Your task to perform on an android device: Open wifi settings Image 0: 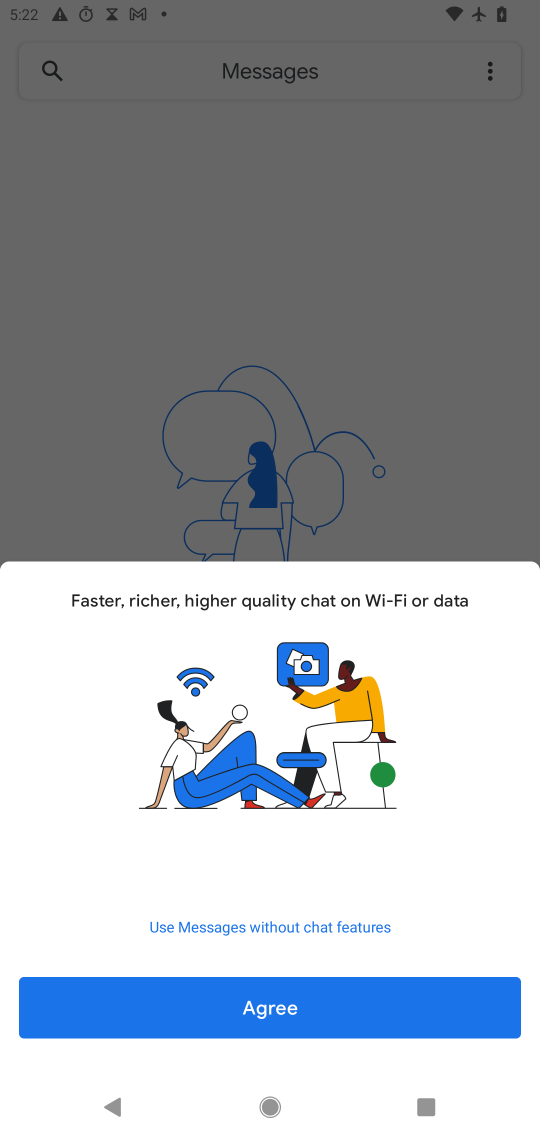
Step 0: press home button
Your task to perform on an android device: Open wifi settings Image 1: 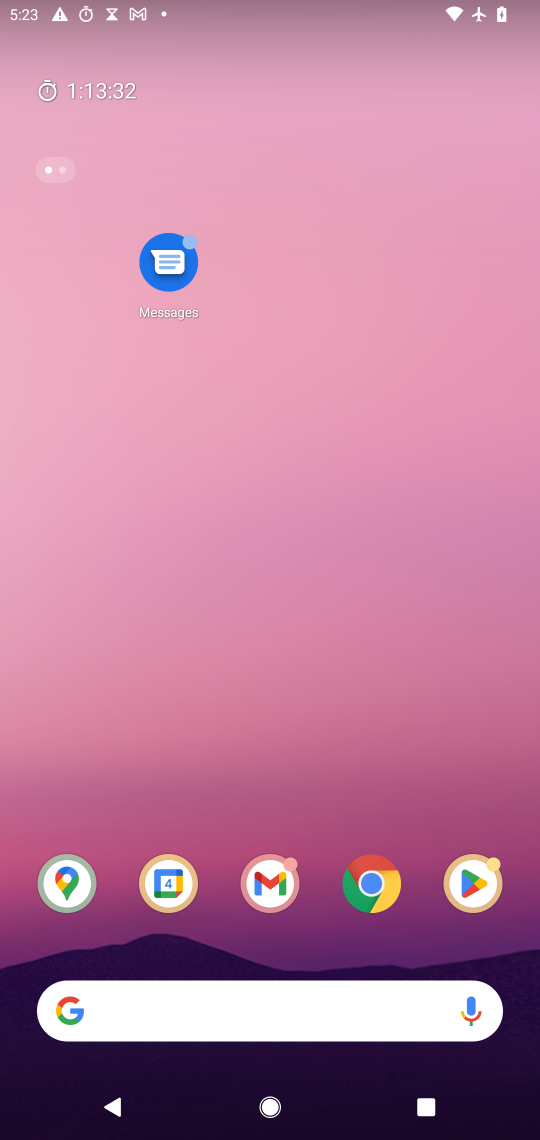
Step 1: drag from (321, 929) to (364, 61)
Your task to perform on an android device: Open wifi settings Image 2: 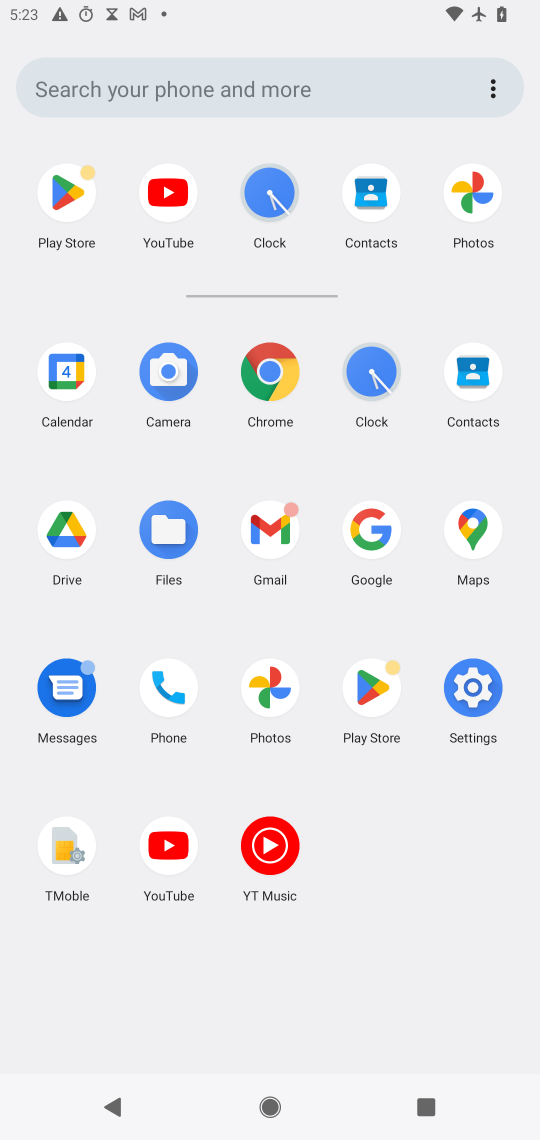
Step 2: click (470, 680)
Your task to perform on an android device: Open wifi settings Image 3: 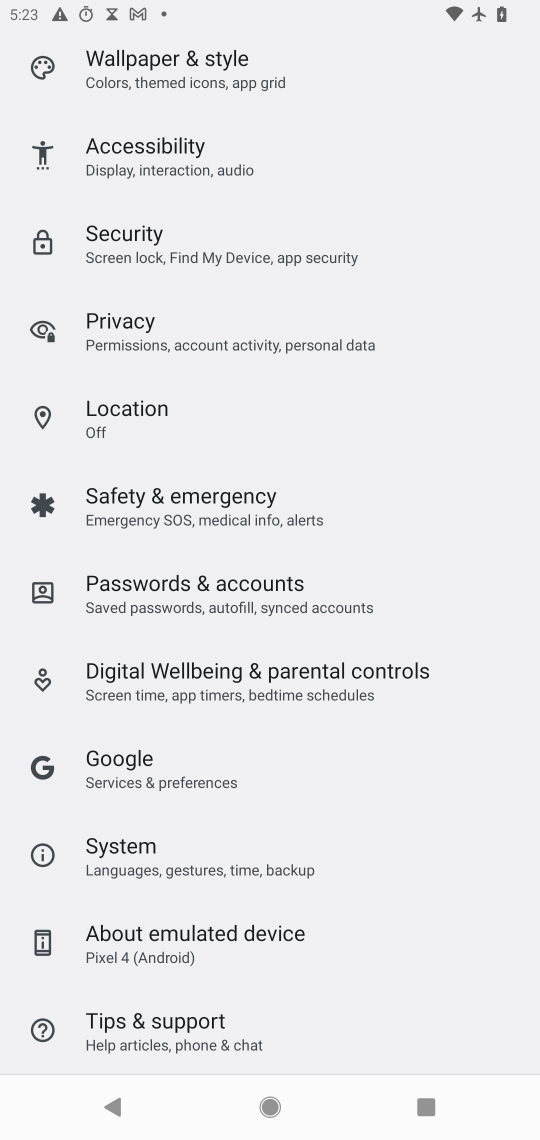
Step 3: drag from (266, 137) to (246, 904)
Your task to perform on an android device: Open wifi settings Image 4: 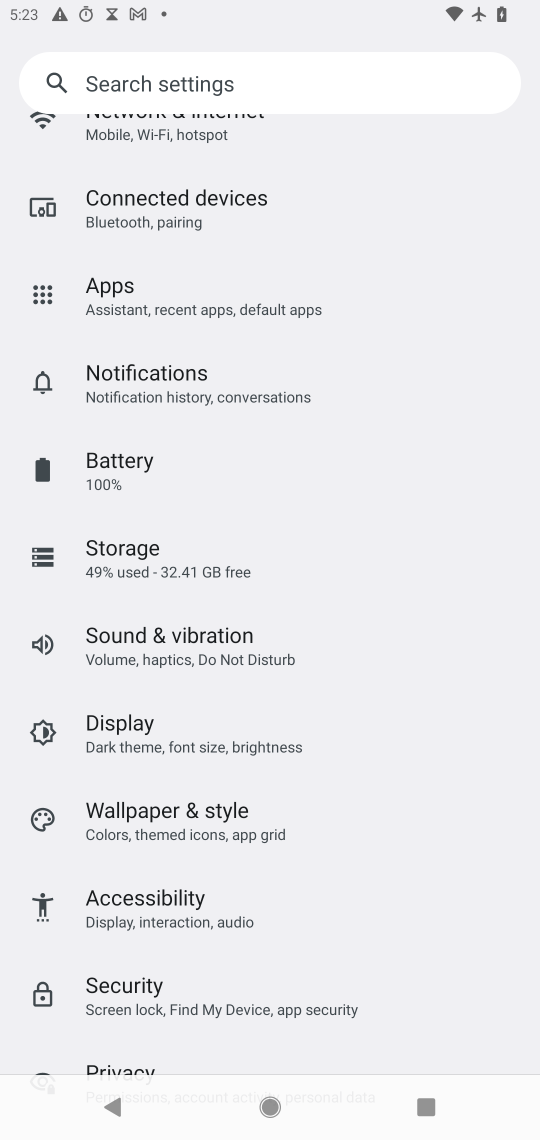
Step 4: drag from (216, 227) to (217, 788)
Your task to perform on an android device: Open wifi settings Image 5: 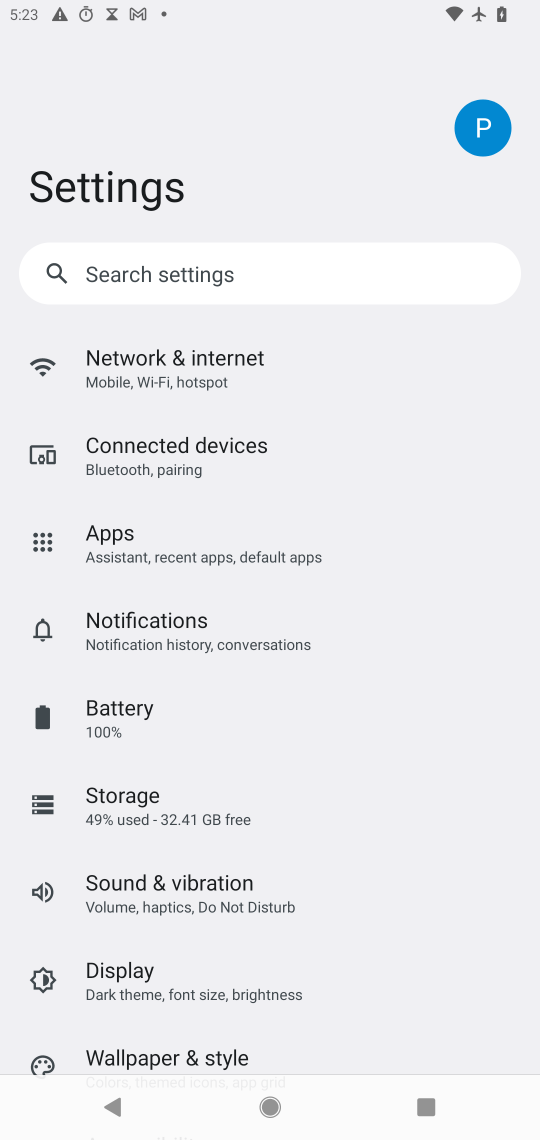
Step 5: click (154, 375)
Your task to perform on an android device: Open wifi settings Image 6: 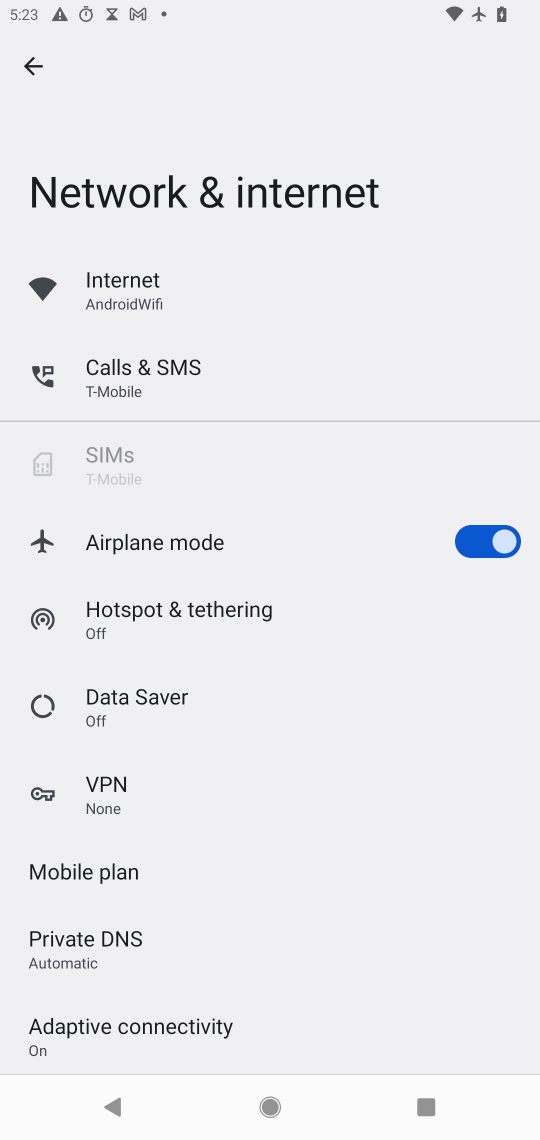
Step 6: click (112, 295)
Your task to perform on an android device: Open wifi settings Image 7: 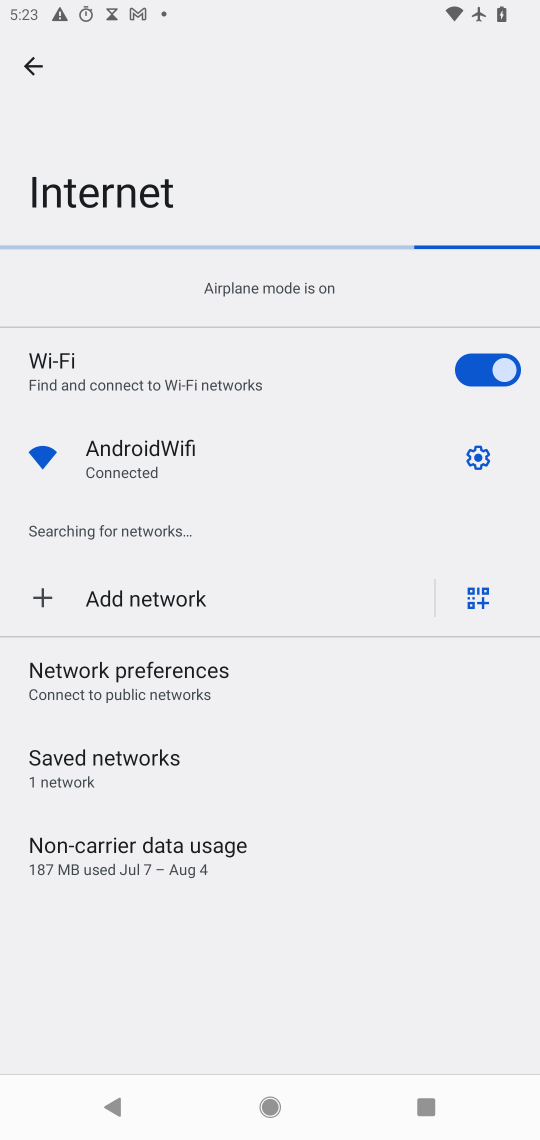
Step 7: task complete